Your task to perform on an android device: change timer sound Image 0: 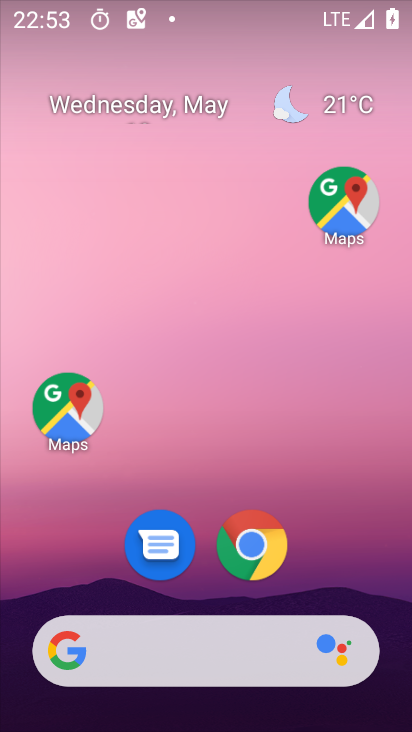
Step 0: drag from (305, 583) to (327, 108)
Your task to perform on an android device: change timer sound Image 1: 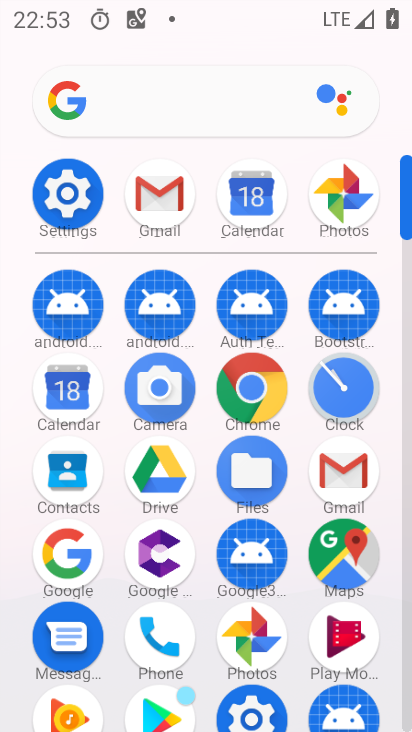
Step 1: click (339, 386)
Your task to perform on an android device: change timer sound Image 2: 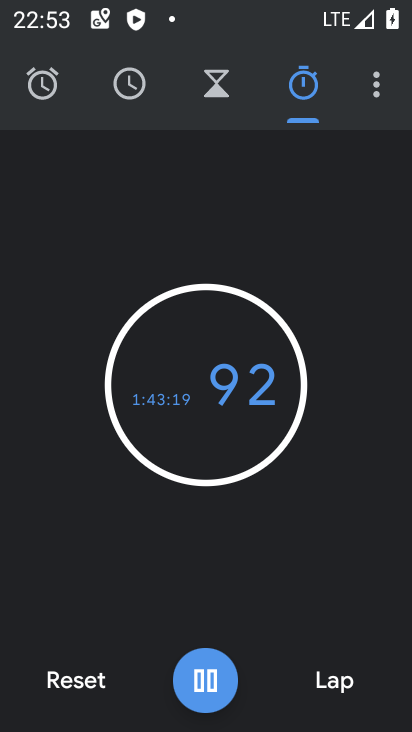
Step 2: click (380, 72)
Your task to perform on an android device: change timer sound Image 3: 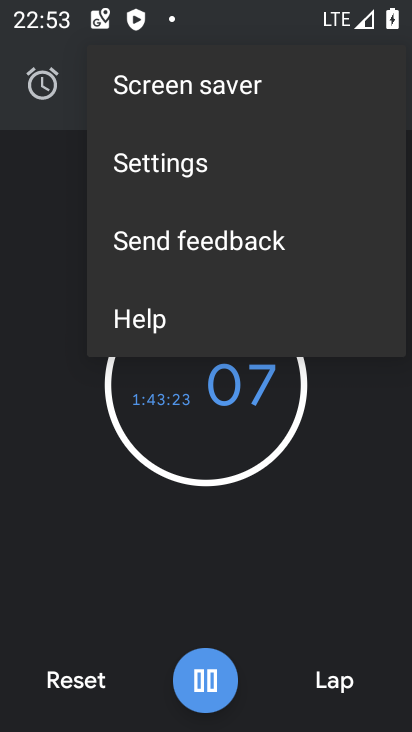
Step 3: click (243, 154)
Your task to perform on an android device: change timer sound Image 4: 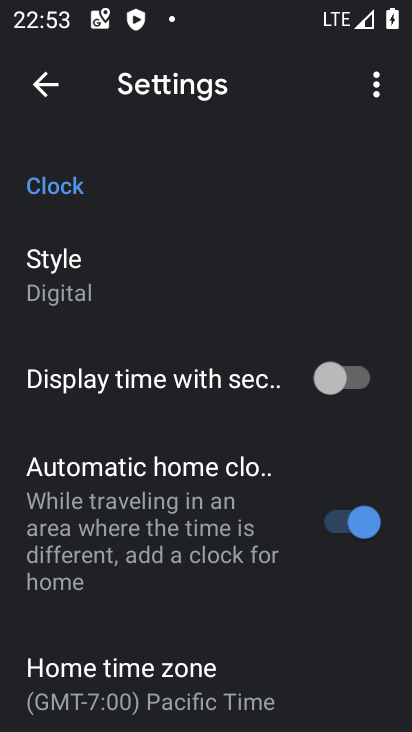
Step 4: drag from (108, 538) to (146, 275)
Your task to perform on an android device: change timer sound Image 5: 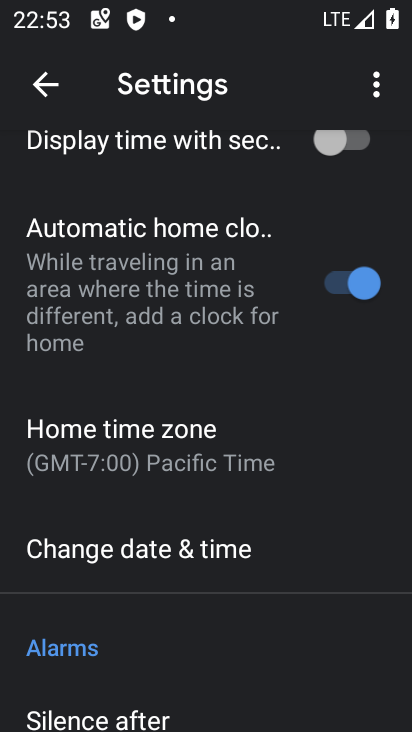
Step 5: drag from (204, 551) to (211, 366)
Your task to perform on an android device: change timer sound Image 6: 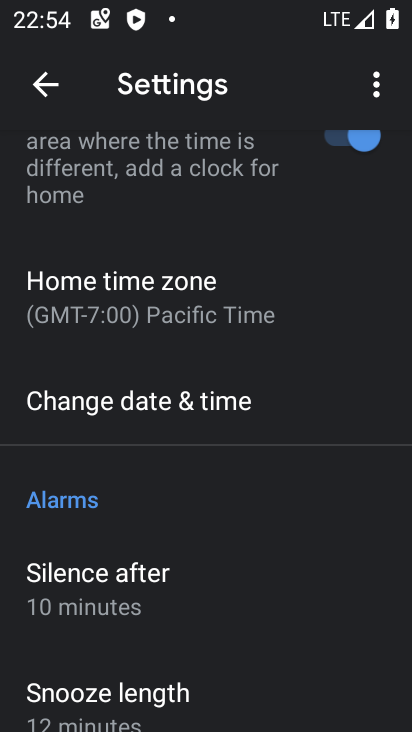
Step 6: drag from (167, 576) to (177, 408)
Your task to perform on an android device: change timer sound Image 7: 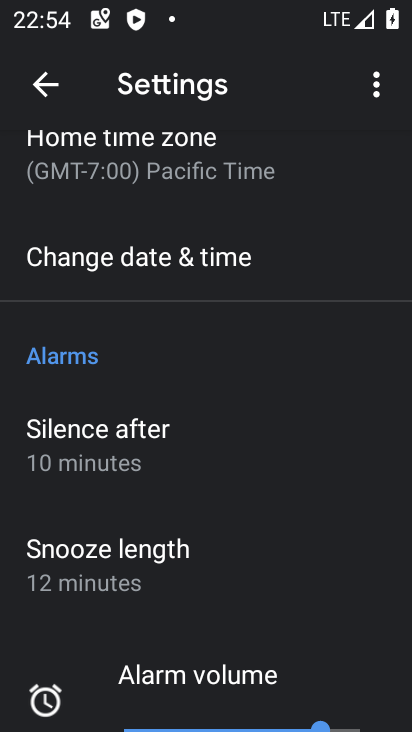
Step 7: drag from (170, 625) to (182, 452)
Your task to perform on an android device: change timer sound Image 8: 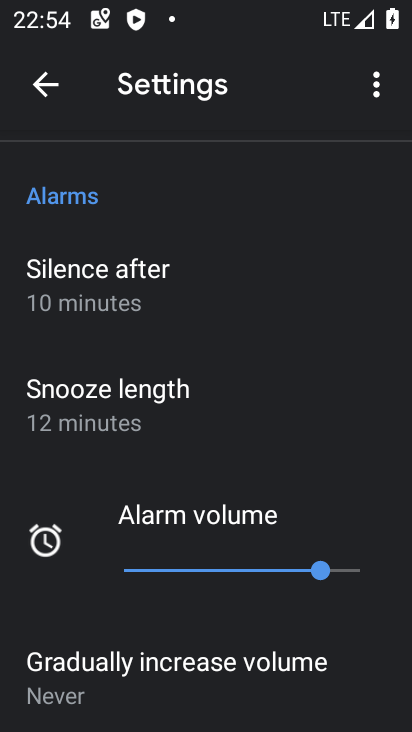
Step 8: drag from (144, 678) to (142, 515)
Your task to perform on an android device: change timer sound Image 9: 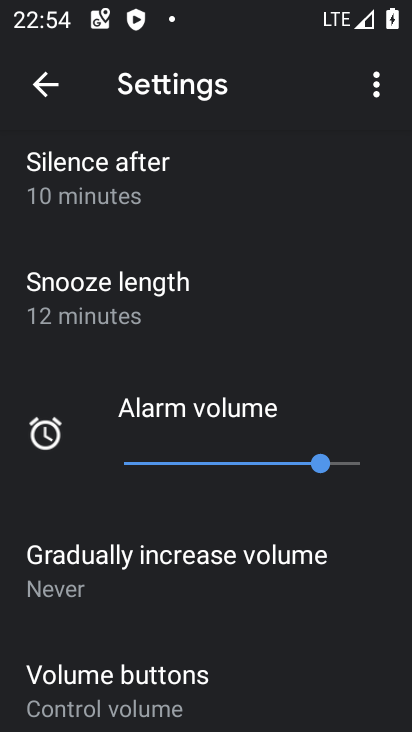
Step 9: drag from (156, 608) to (163, 467)
Your task to perform on an android device: change timer sound Image 10: 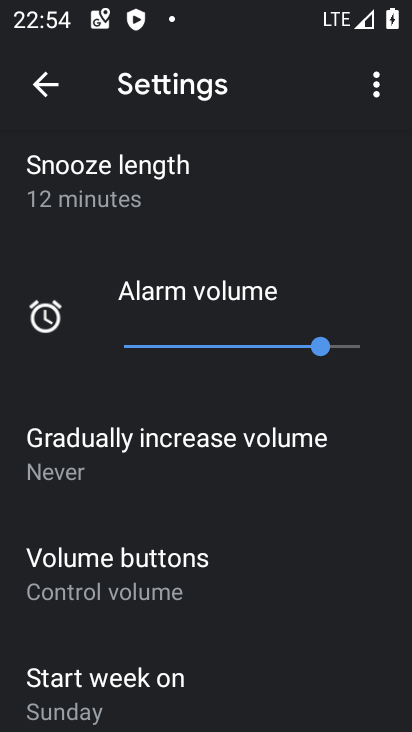
Step 10: drag from (186, 676) to (199, 508)
Your task to perform on an android device: change timer sound Image 11: 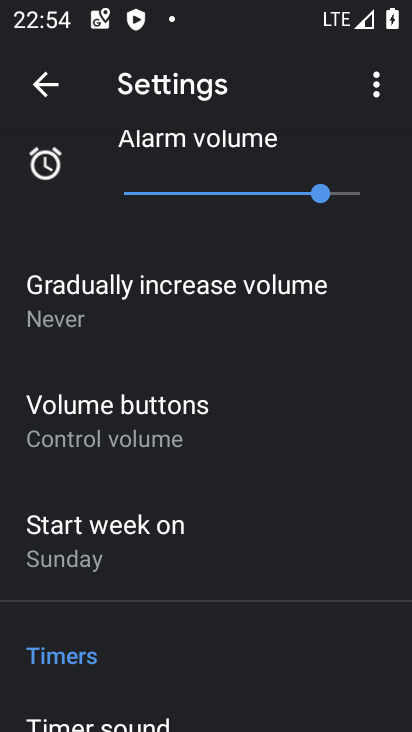
Step 11: drag from (221, 568) to (230, 434)
Your task to perform on an android device: change timer sound Image 12: 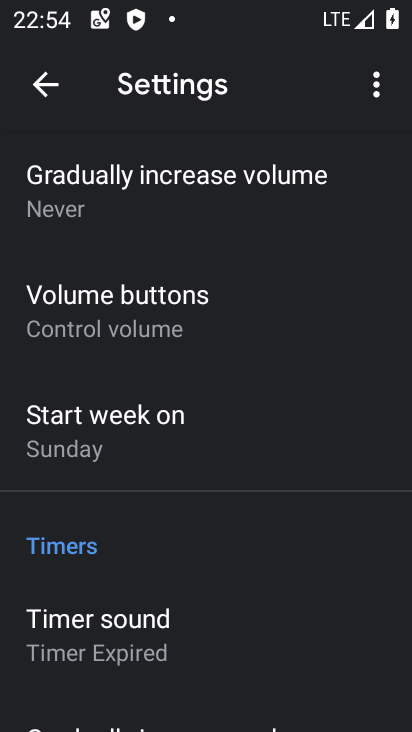
Step 12: click (237, 637)
Your task to perform on an android device: change timer sound Image 13: 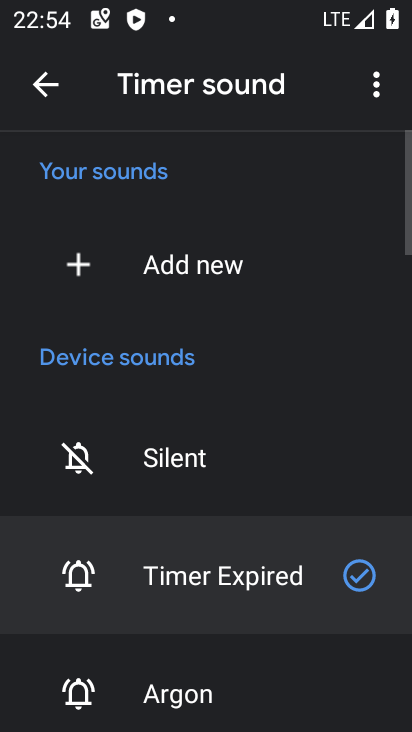
Step 13: click (189, 665)
Your task to perform on an android device: change timer sound Image 14: 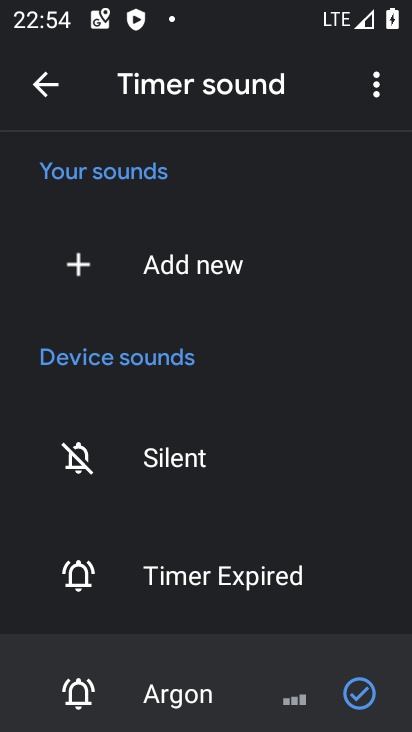
Step 14: task complete